Your task to perform on an android device: turn off translation in the chrome app Image 0: 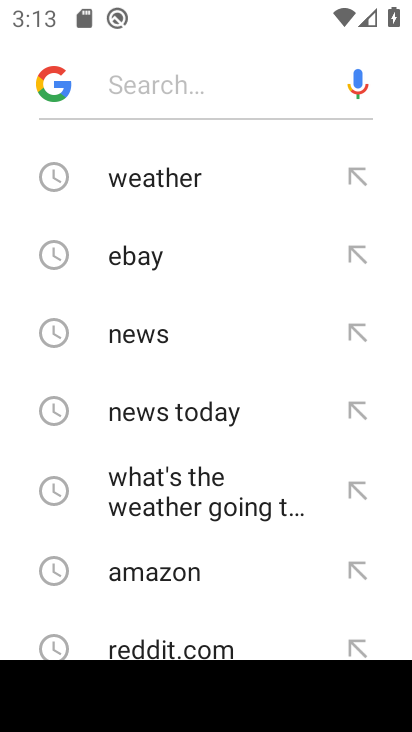
Step 0: press home button
Your task to perform on an android device: turn off translation in the chrome app Image 1: 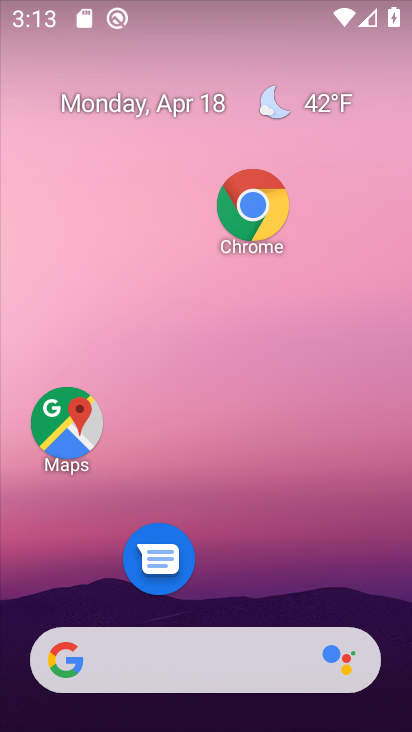
Step 1: drag from (215, 548) to (281, 190)
Your task to perform on an android device: turn off translation in the chrome app Image 2: 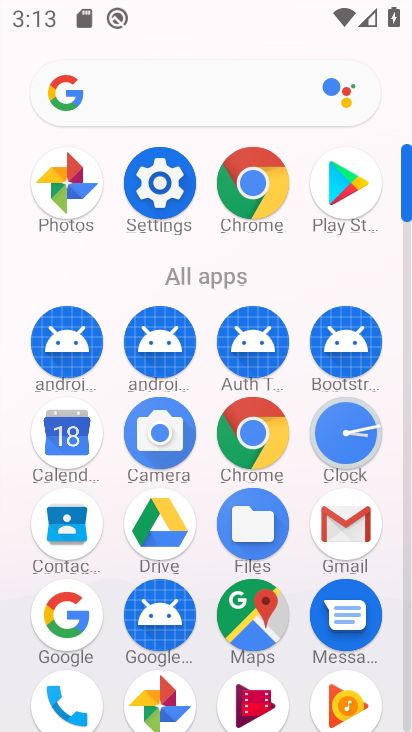
Step 2: click (259, 430)
Your task to perform on an android device: turn off translation in the chrome app Image 3: 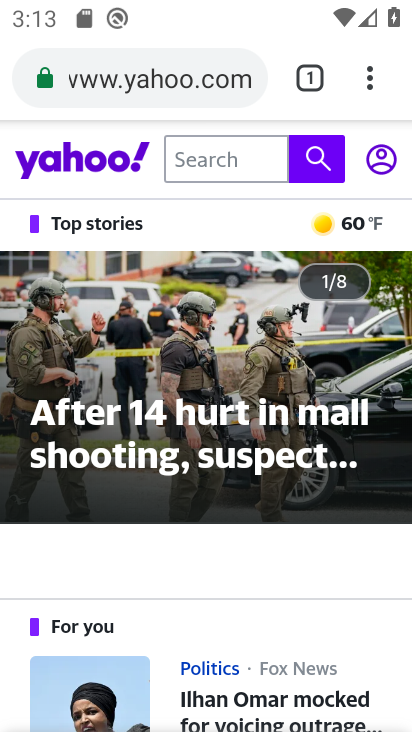
Step 3: click (370, 85)
Your task to perform on an android device: turn off translation in the chrome app Image 4: 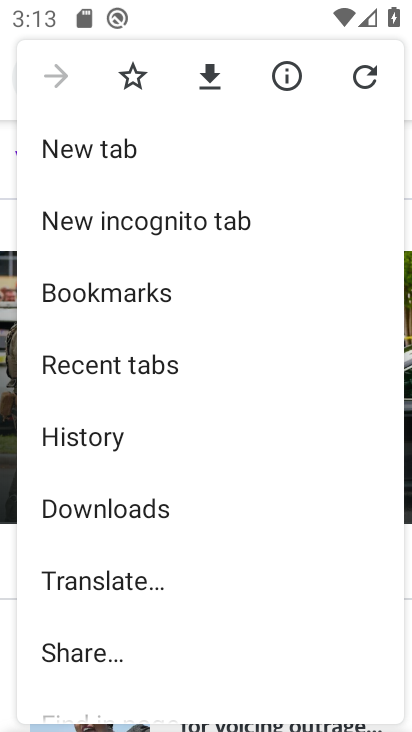
Step 4: drag from (101, 596) to (260, 234)
Your task to perform on an android device: turn off translation in the chrome app Image 5: 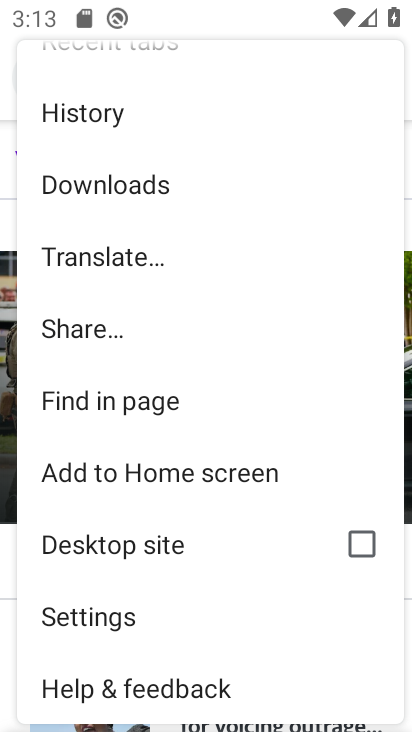
Step 5: click (96, 621)
Your task to perform on an android device: turn off translation in the chrome app Image 6: 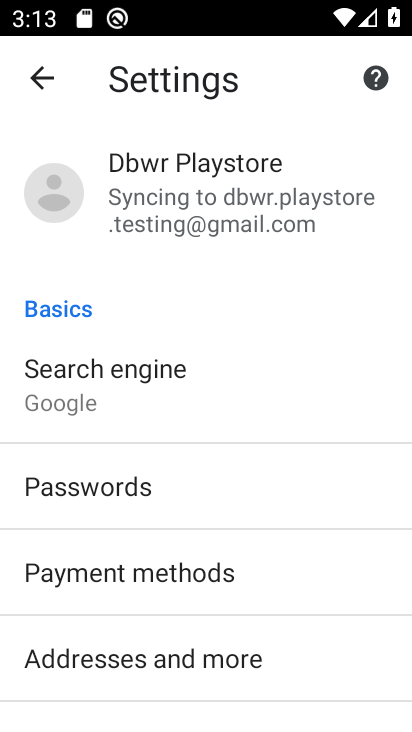
Step 6: drag from (83, 601) to (174, 218)
Your task to perform on an android device: turn off translation in the chrome app Image 7: 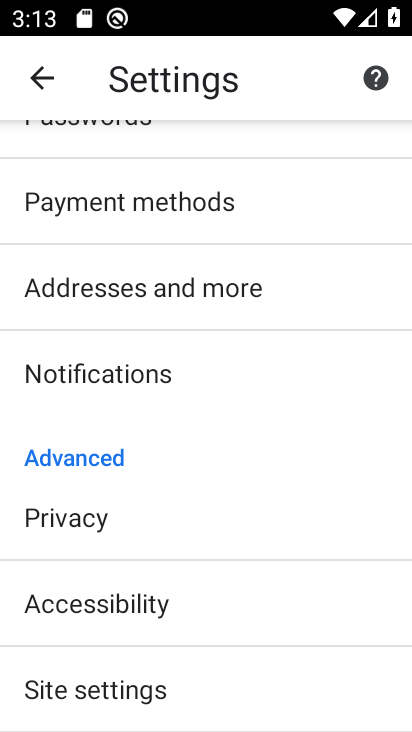
Step 7: drag from (121, 599) to (213, 349)
Your task to perform on an android device: turn off translation in the chrome app Image 8: 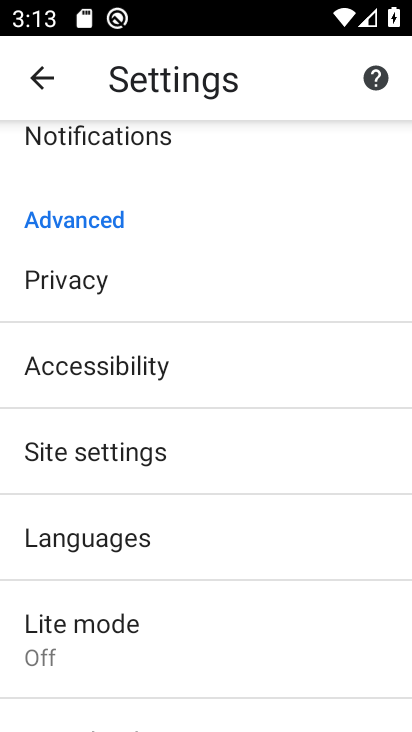
Step 8: click (82, 539)
Your task to perform on an android device: turn off translation in the chrome app Image 9: 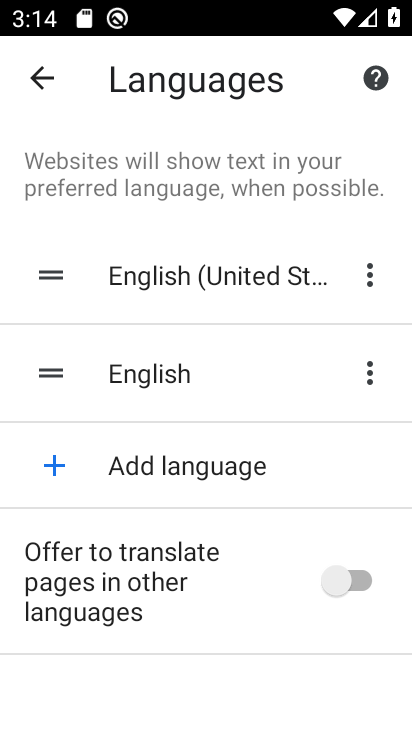
Step 9: click (139, 562)
Your task to perform on an android device: turn off translation in the chrome app Image 10: 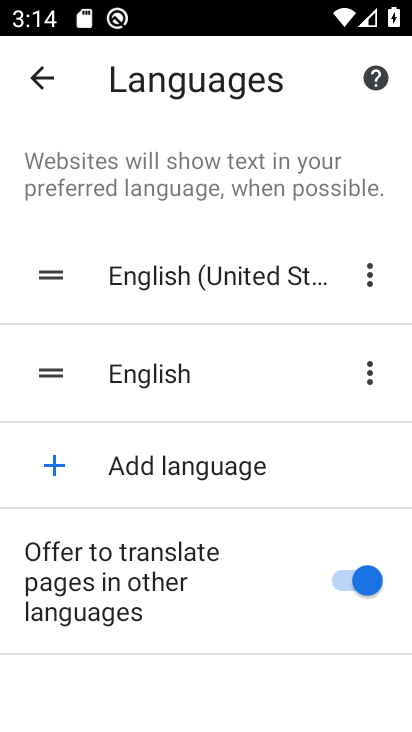
Step 10: task complete